Your task to perform on an android device: turn smart compose on in the gmail app Image 0: 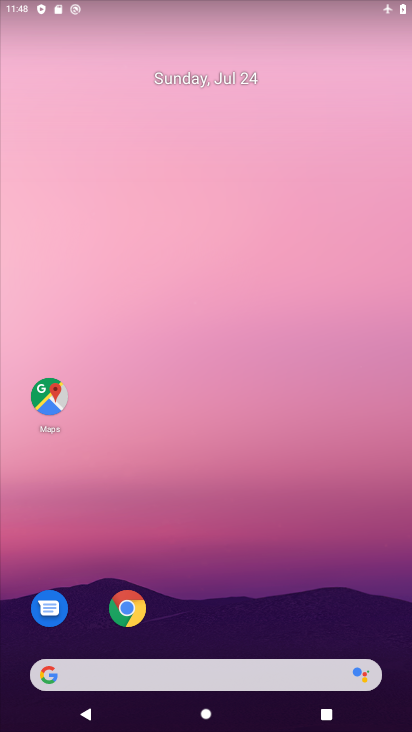
Step 0: click (163, 196)
Your task to perform on an android device: turn smart compose on in the gmail app Image 1: 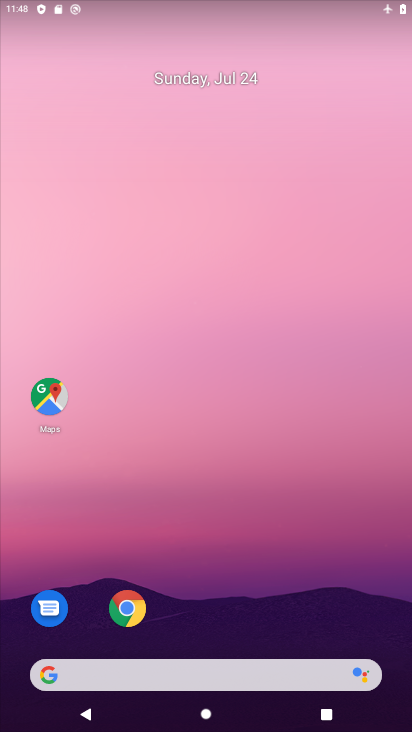
Step 1: drag from (225, 584) to (224, 113)
Your task to perform on an android device: turn smart compose on in the gmail app Image 2: 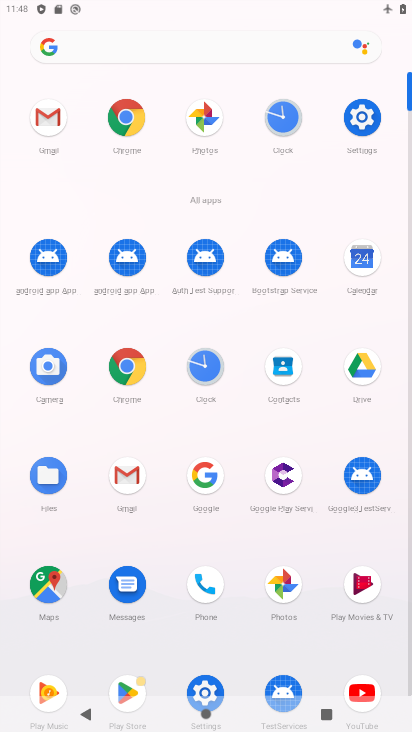
Step 2: click (65, 128)
Your task to perform on an android device: turn smart compose on in the gmail app Image 3: 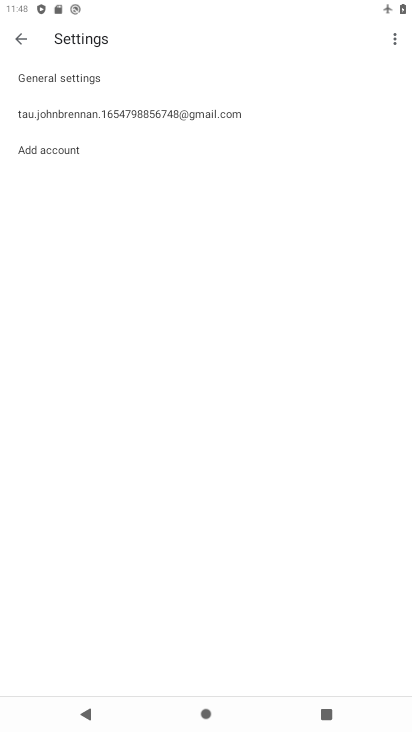
Step 3: click (84, 113)
Your task to perform on an android device: turn smart compose on in the gmail app Image 4: 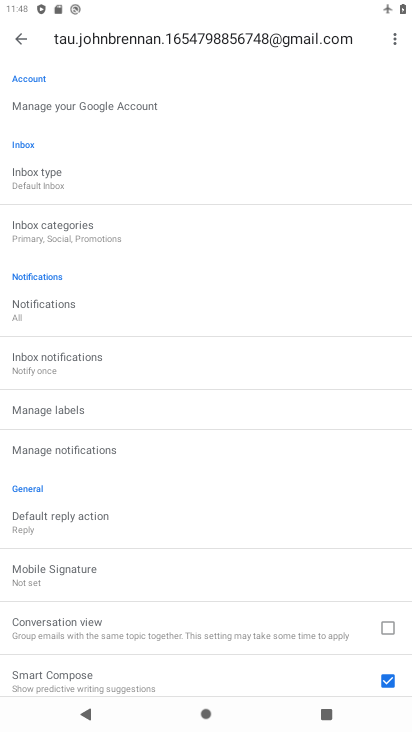
Step 4: task complete